Your task to perform on an android device: Open Maps and search for coffee Image 0: 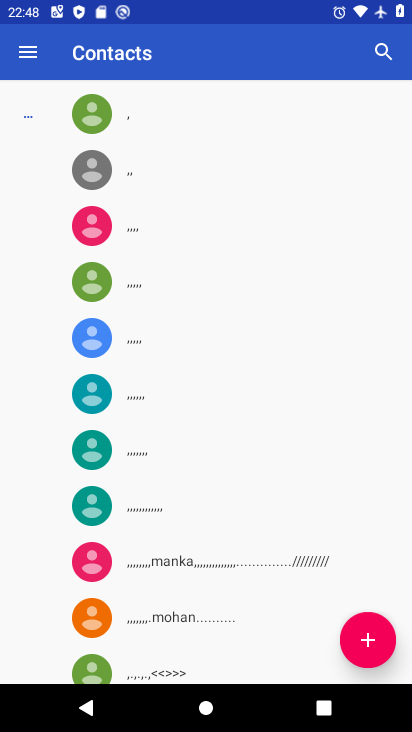
Step 0: press home button
Your task to perform on an android device: Open Maps and search for coffee Image 1: 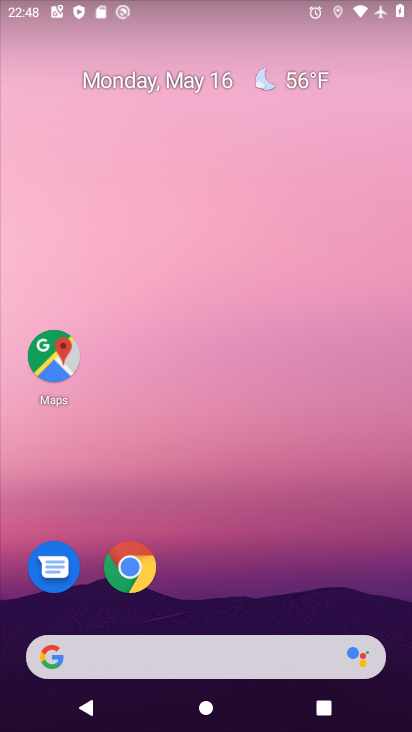
Step 1: drag from (241, 613) to (280, 319)
Your task to perform on an android device: Open Maps and search for coffee Image 2: 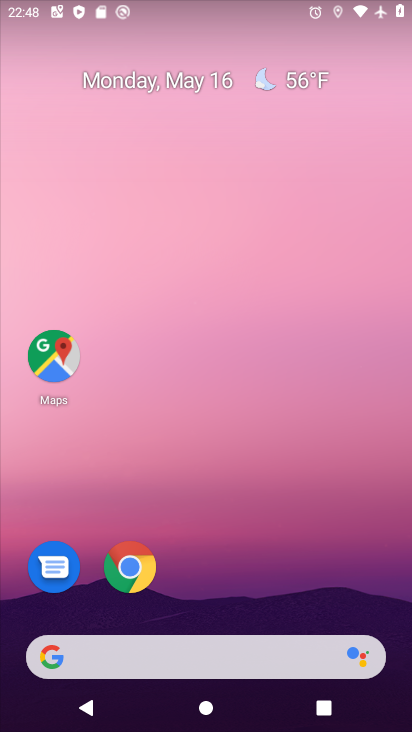
Step 2: click (44, 347)
Your task to perform on an android device: Open Maps and search for coffee Image 3: 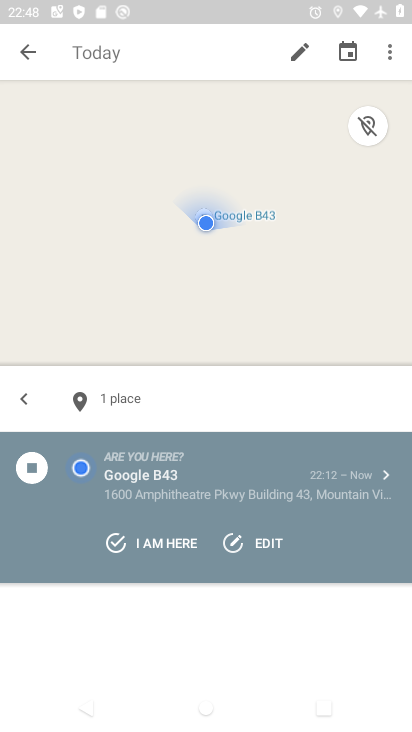
Step 3: click (28, 37)
Your task to perform on an android device: Open Maps and search for coffee Image 4: 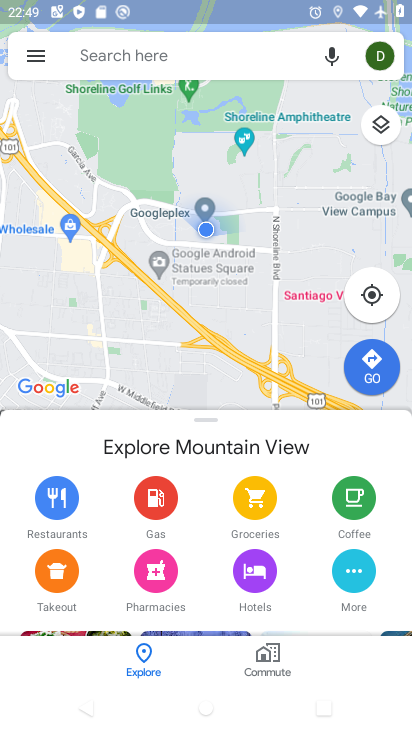
Step 4: click (171, 51)
Your task to perform on an android device: Open Maps and search for coffee Image 5: 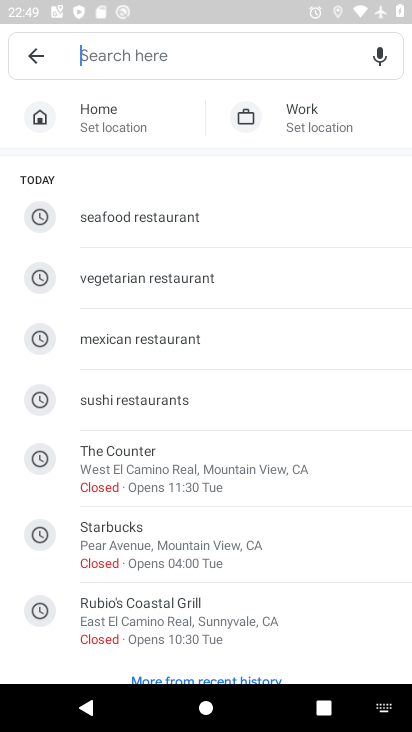
Step 5: drag from (187, 589) to (239, 253)
Your task to perform on an android device: Open Maps and search for coffee Image 6: 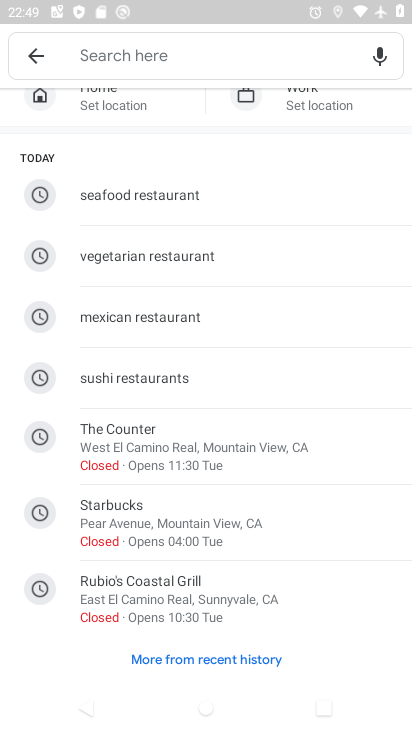
Step 6: click (148, 47)
Your task to perform on an android device: Open Maps and search for coffee Image 7: 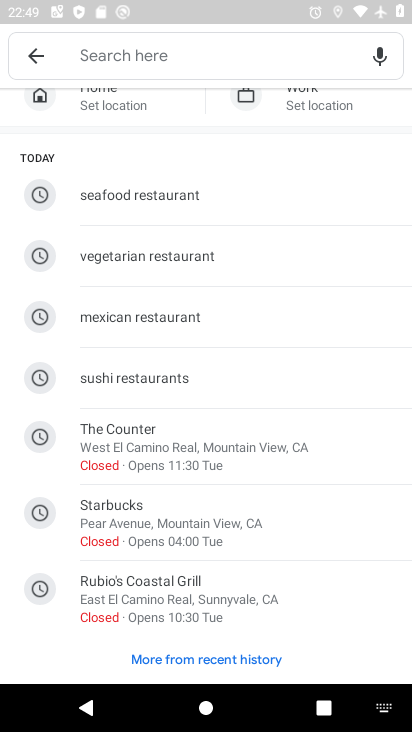
Step 7: type " coffee"
Your task to perform on an android device: Open Maps and search for coffee Image 8: 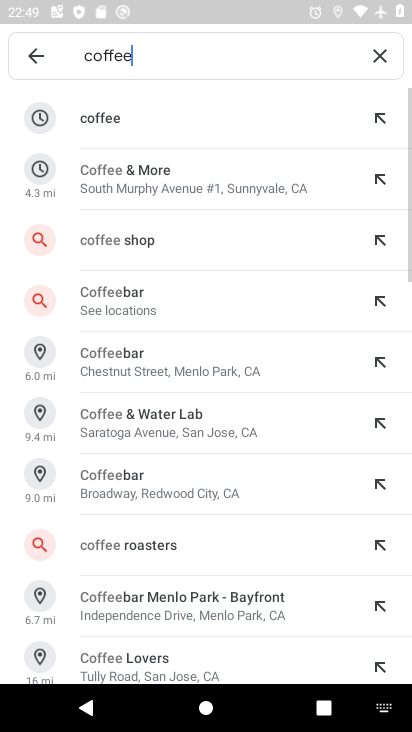
Step 8: click (284, 111)
Your task to perform on an android device: Open Maps and search for coffee Image 9: 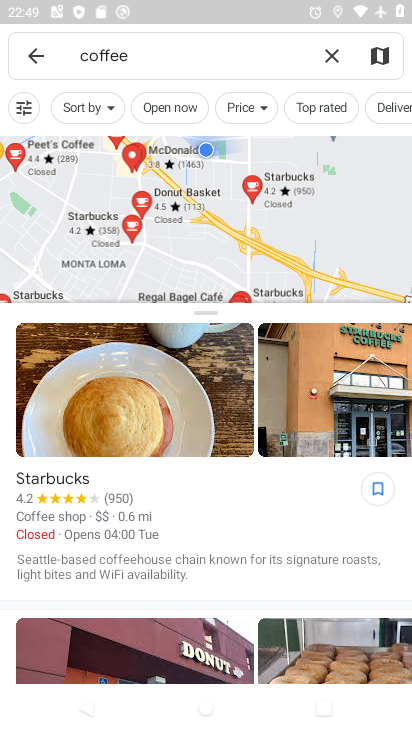
Step 9: task complete